Your task to perform on an android device: When is my next meeting? Image 0: 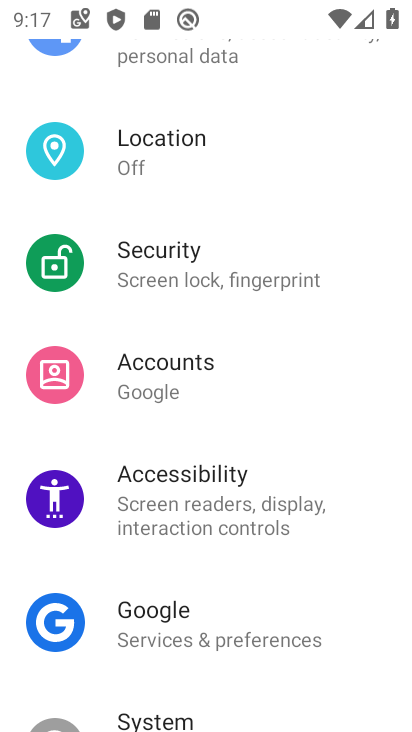
Step 0: press home button
Your task to perform on an android device: When is my next meeting? Image 1: 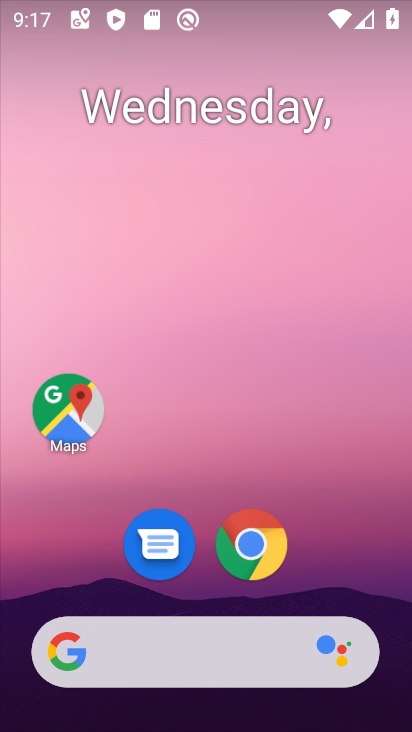
Step 1: click (176, 109)
Your task to perform on an android device: When is my next meeting? Image 2: 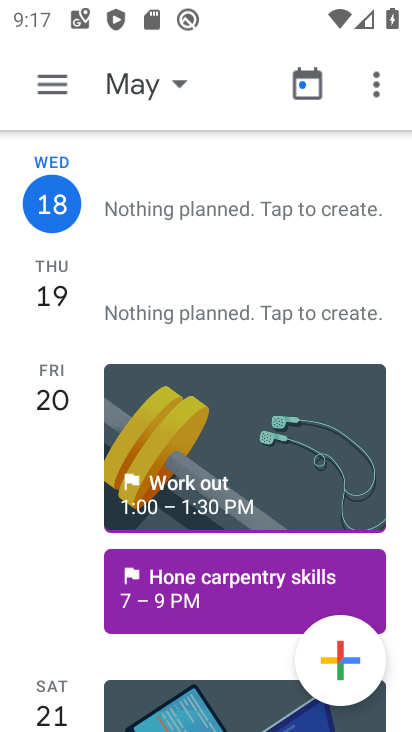
Step 2: task complete